Your task to perform on an android device: allow notifications from all sites in the chrome app Image 0: 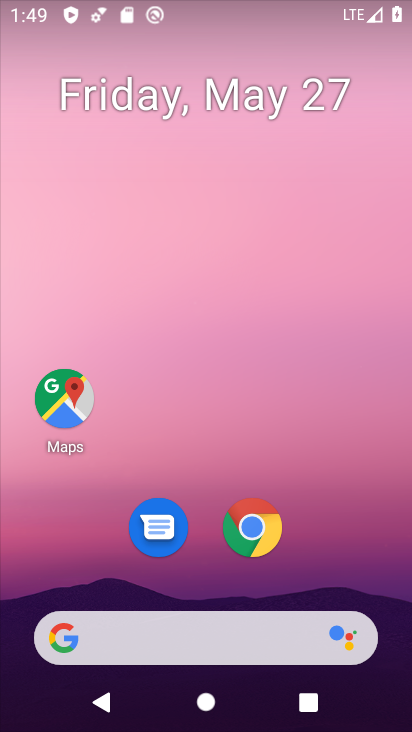
Step 0: click (252, 519)
Your task to perform on an android device: allow notifications from all sites in the chrome app Image 1: 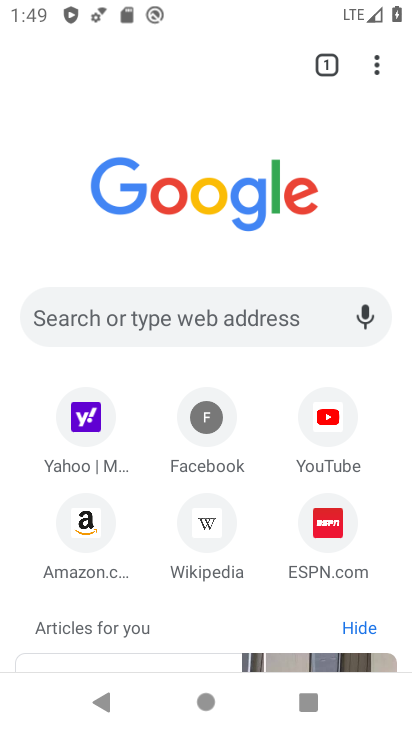
Step 1: click (370, 61)
Your task to perform on an android device: allow notifications from all sites in the chrome app Image 2: 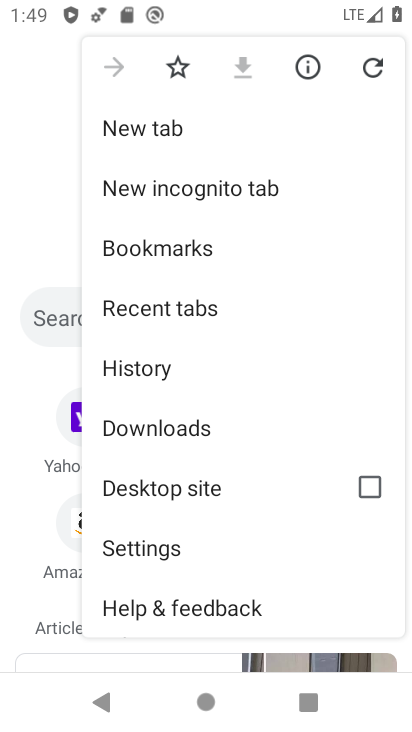
Step 2: click (171, 560)
Your task to perform on an android device: allow notifications from all sites in the chrome app Image 3: 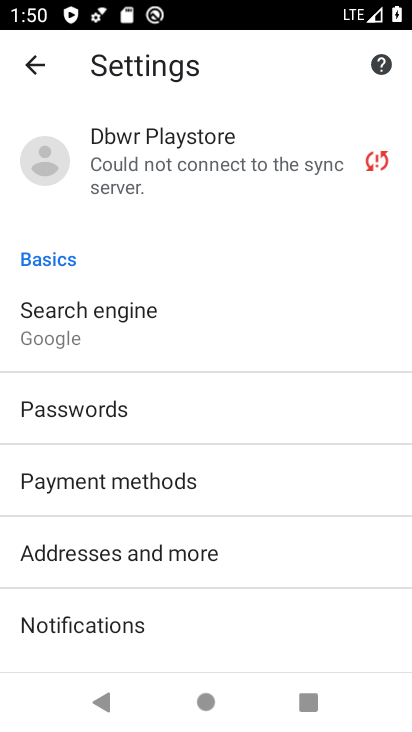
Step 3: click (139, 631)
Your task to perform on an android device: allow notifications from all sites in the chrome app Image 4: 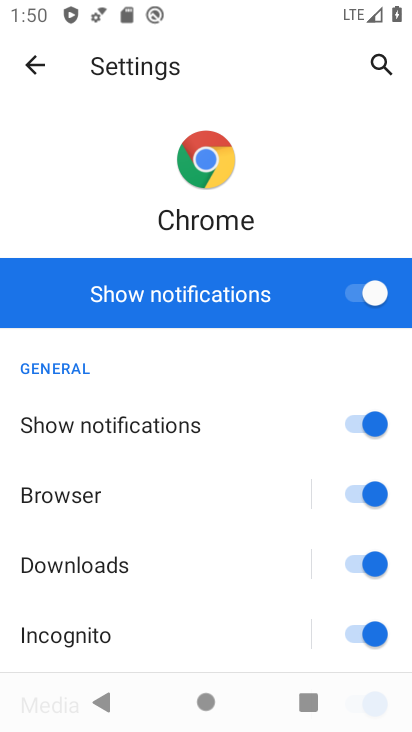
Step 4: task complete